Your task to perform on an android device: Go to accessibility settings Image 0: 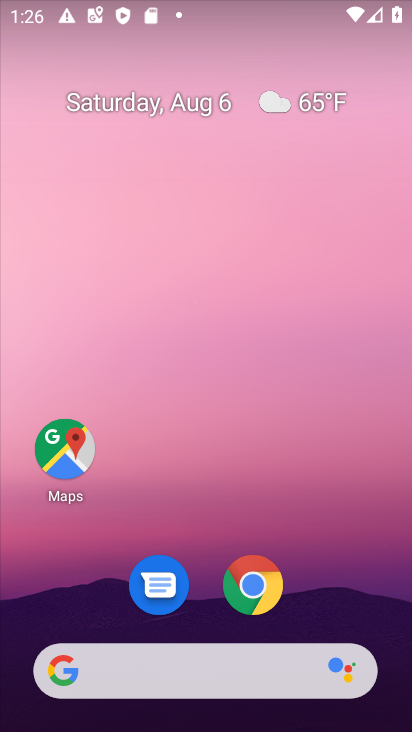
Step 0: drag from (223, 518) to (252, 1)
Your task to perform on an android device: Go to accessibility settings Image 1: 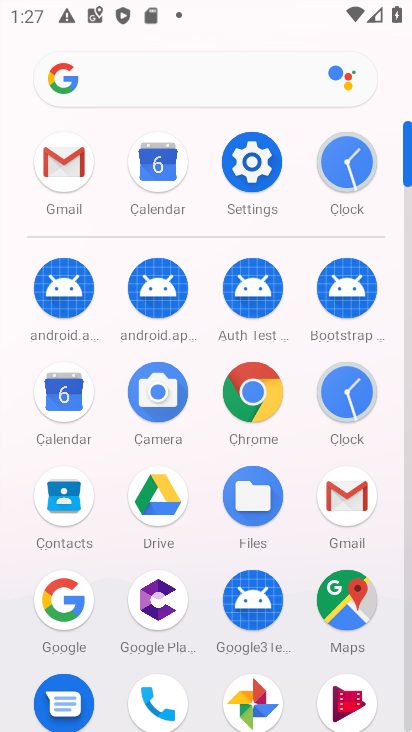
Step 1: click (256, 165)
Your task to perform on an android device: Go to accessibility settings Image 2: 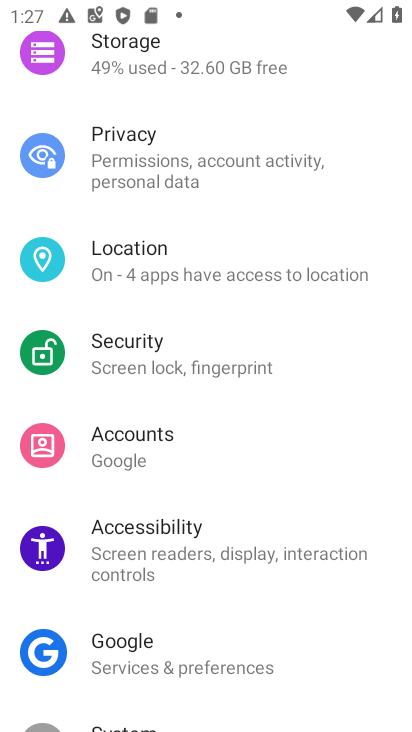
Step 2: click (202, 541)
Your task to perform on an android device: Go to accessibility settings Image 3: 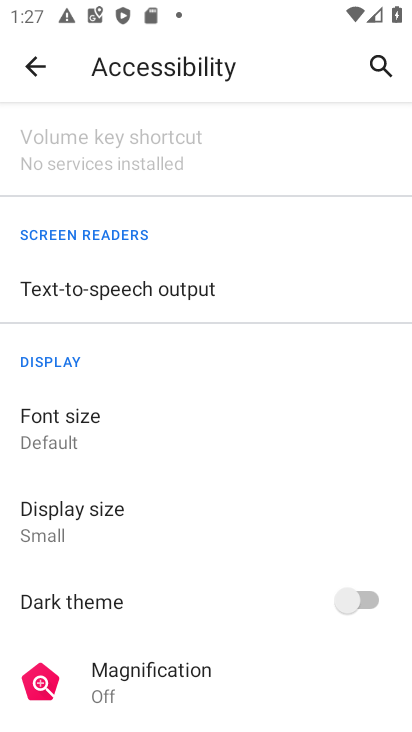
Step 3: task complete